Your task to perform on an android device: check android version Image 0: 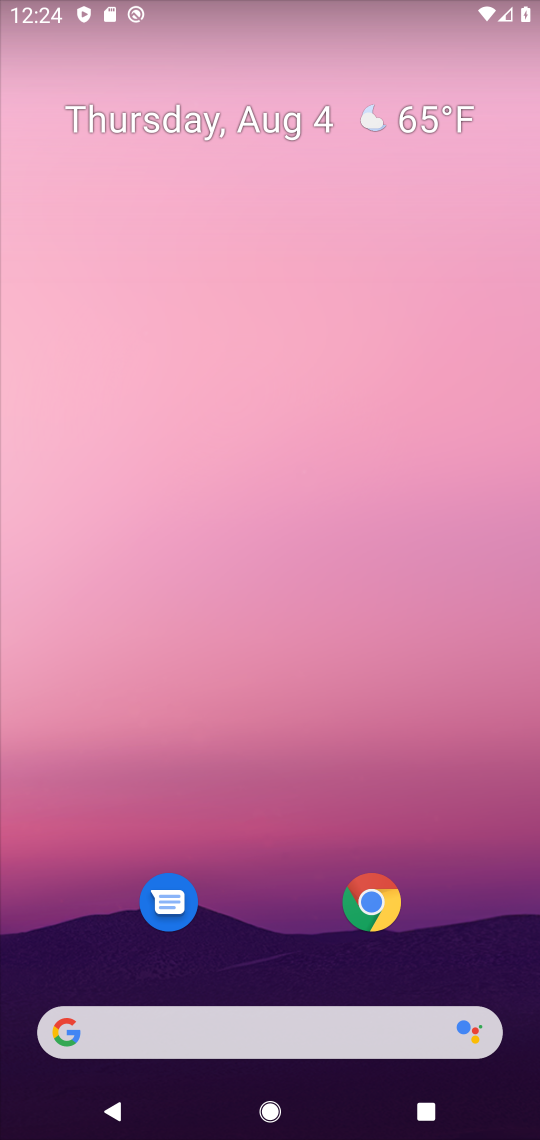
Step 0: drag from (488, 964) to (450, 279)
Your task to perform on an android device: check android version Image 1: 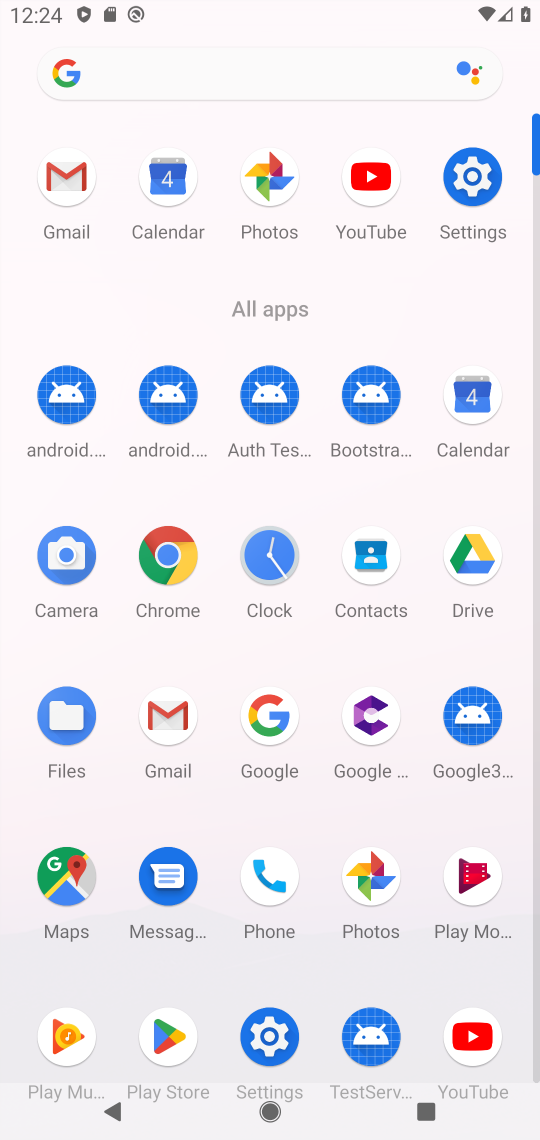
Step 1: click (266, 1037)
Your task to perform on an android device: check android version Image 2: 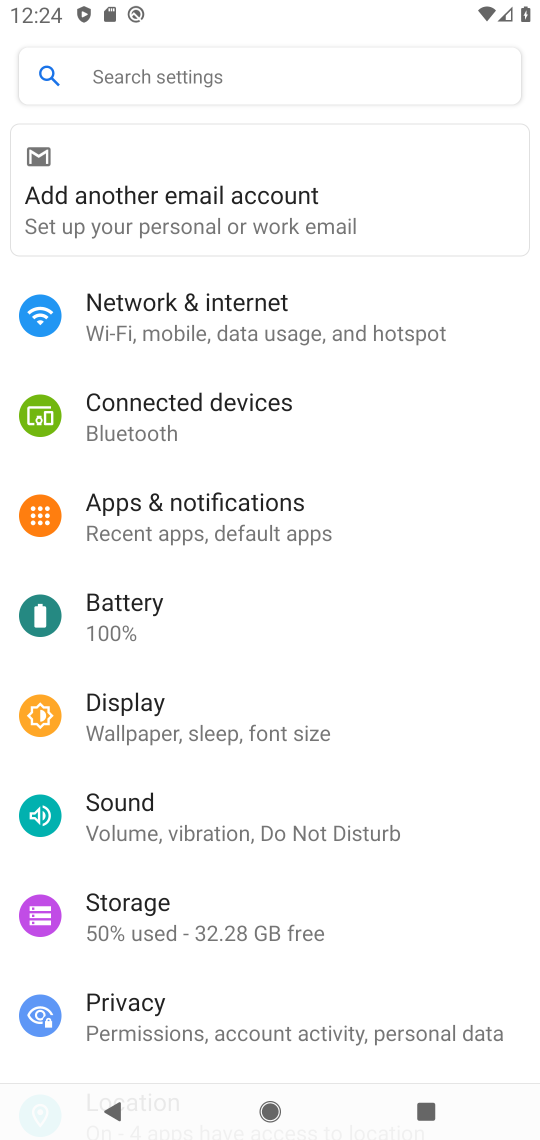
Step 2: drag from (395, 884) to (422, 469)
Your task to perform on an android device: check android version Image 3: 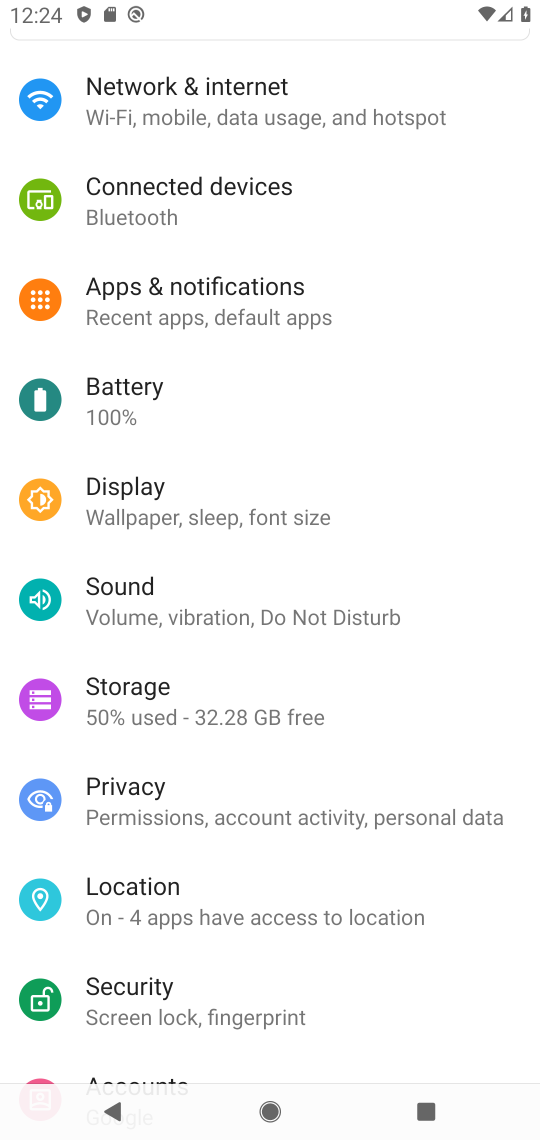
Step 3: drag from (421, 978) to (414, 415)
Your task to perform on an android device: check android version Image 4: 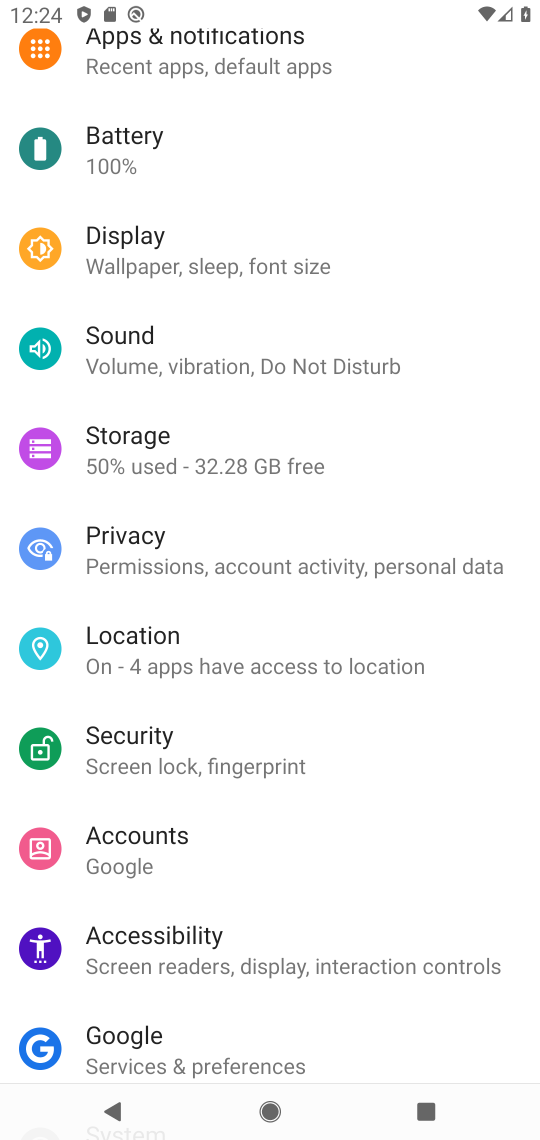
Step 4: drag from (412, 901) to (403, 363)
Your task to perform on an android device: check android version Image 5: 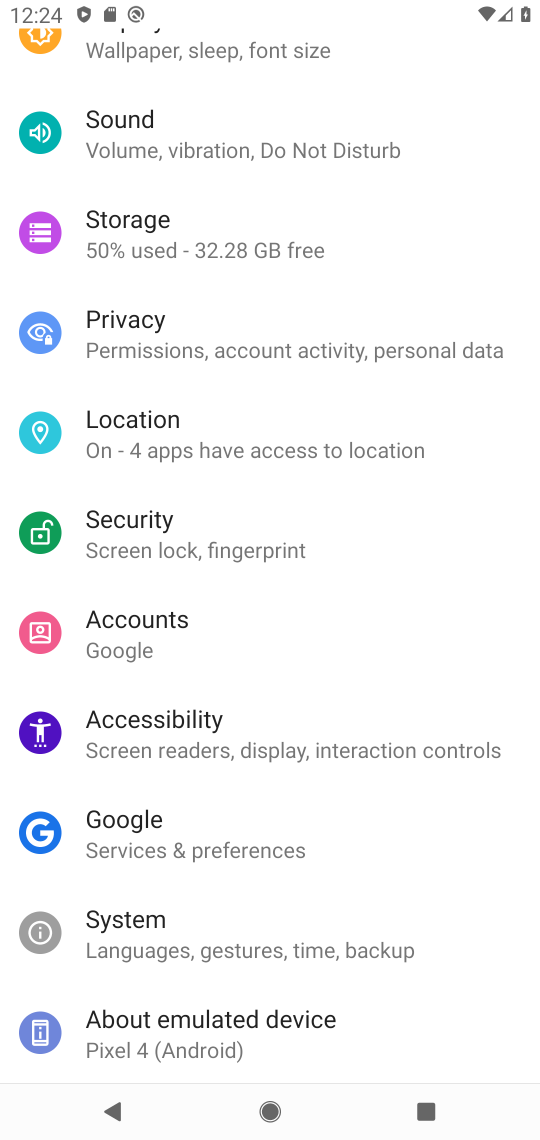
Step 5: click (143, 1035)
Your task to perform on an android device: check android version Image 6: 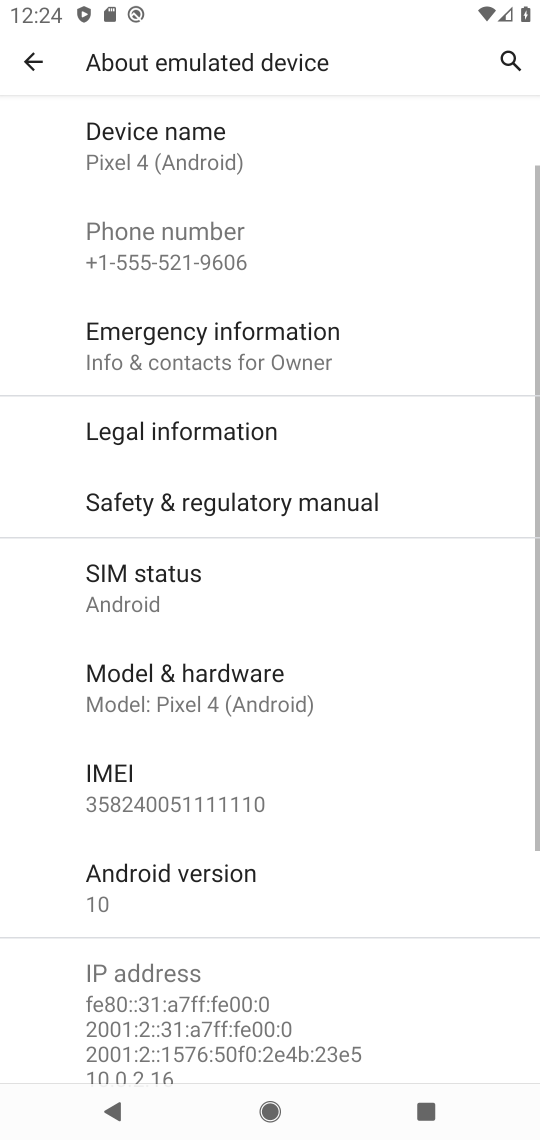
Step 6: click (133, 889)
Your task to perform on an android device: check android version Image 7: 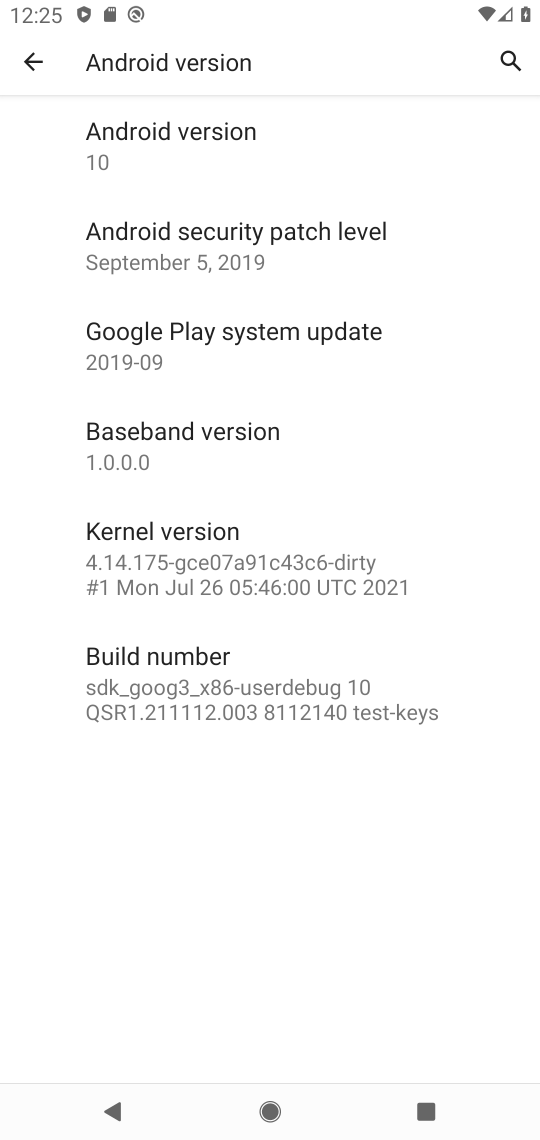
Step 7: click (180, 132)
Your task to perform on an android device: check android version Image 8: 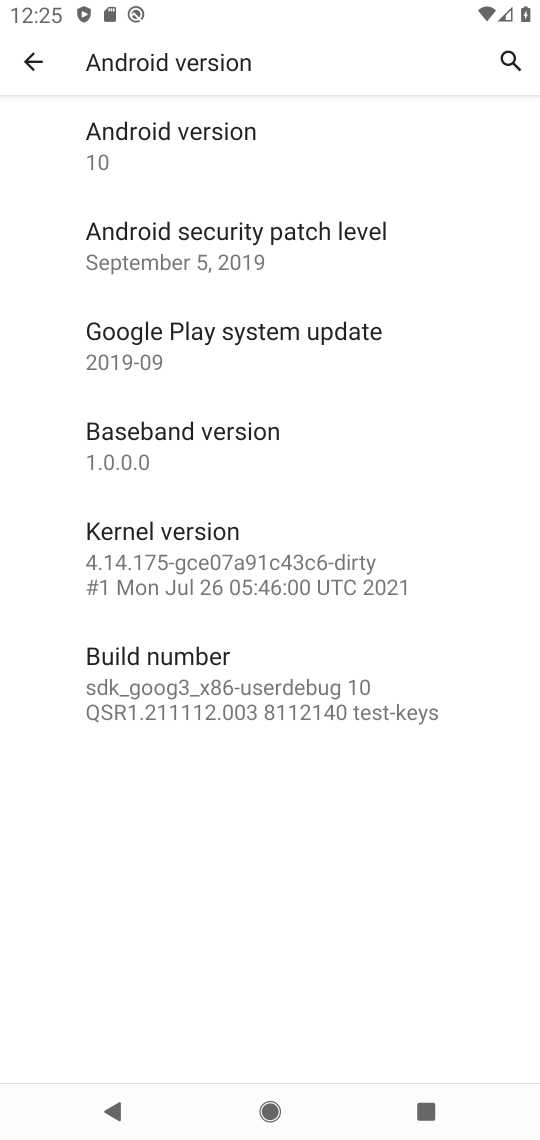
Step 8: task complete